Your task to perform on an android device: Open the map Image 0: 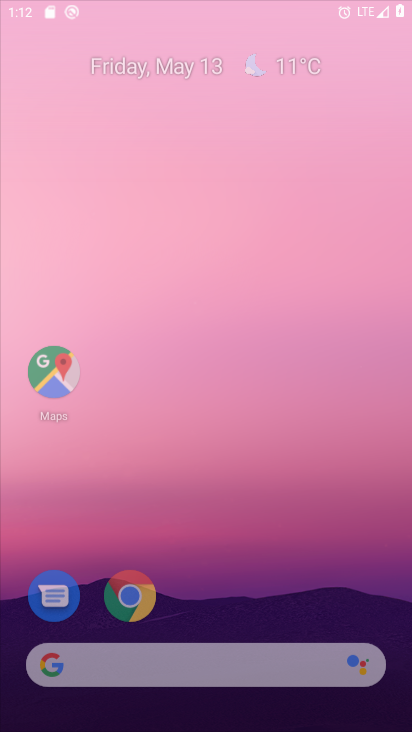
Step 0: click (406, 582)
Your task to perform on an android device: Open the map Image 1: 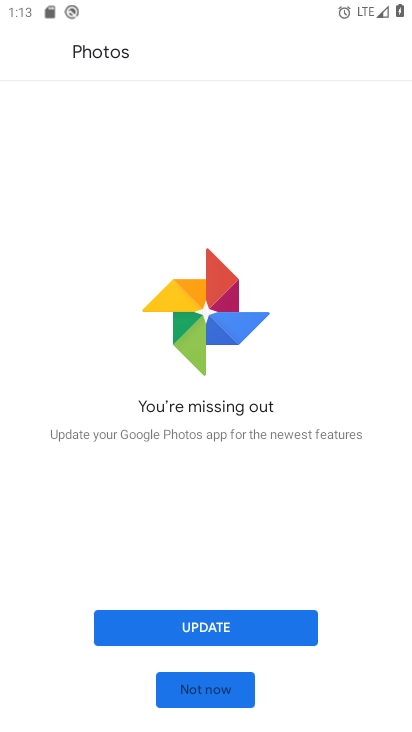
Step 1: press home button
Your task to perform on an android device: Open the map Image 2: 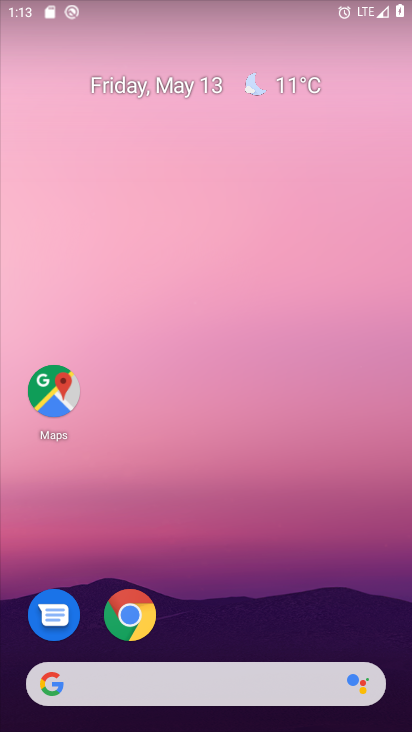
Step 2: click (45, 382)
Your task to perform on an android device: Open the map Image 3: 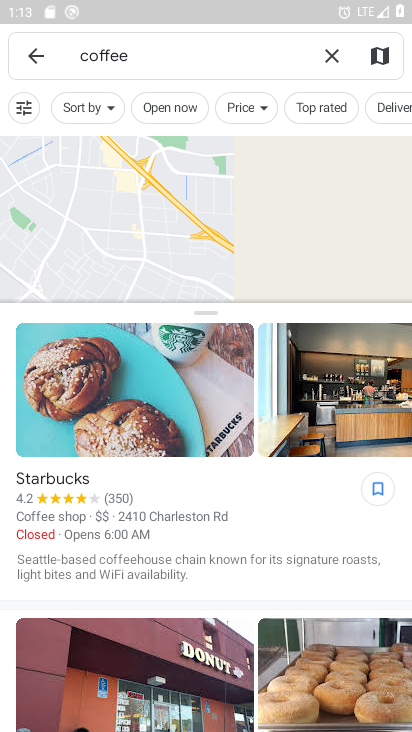
Step 3: task complete